Your task to perform on an android device: Open the web browser Image 0: 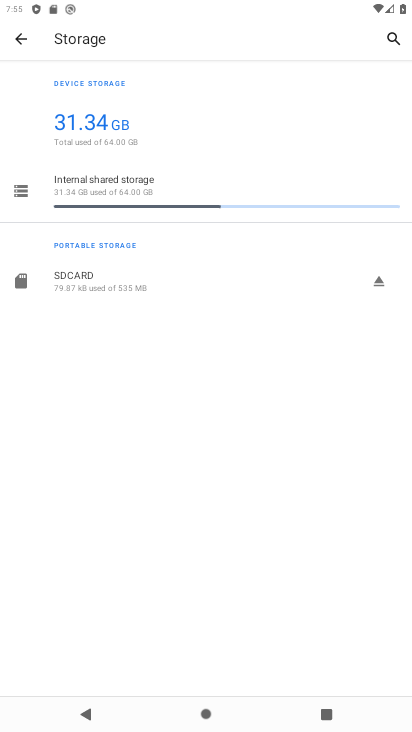
Step 0: press home button
Your task to perform on an android device: Open the web browser Image 1: 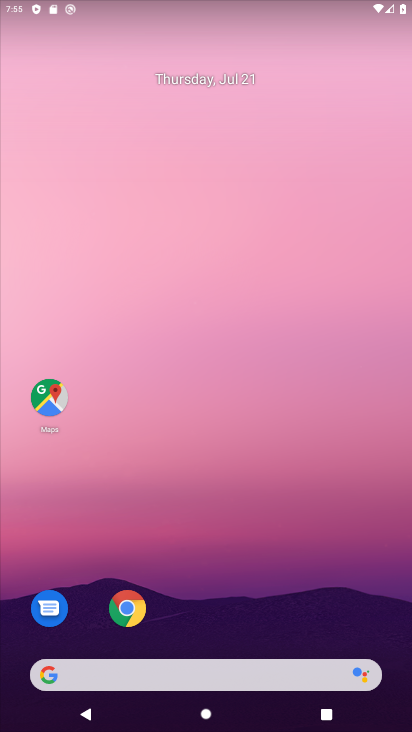
Step 1: click (123, 608)
Your task to perform on an android device: Open the web browser Image 2: 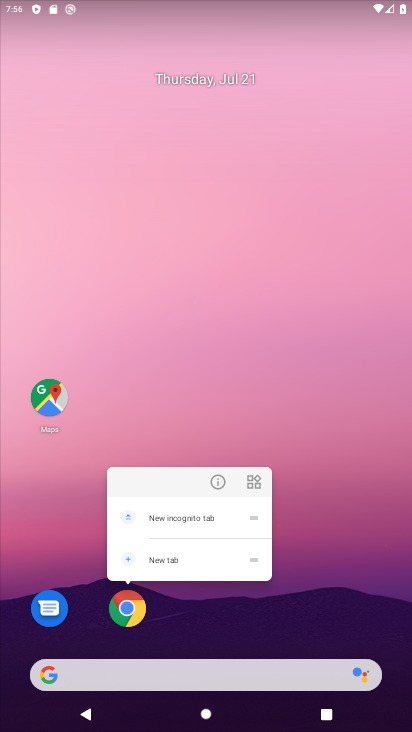
Step 2: click (123, 608)
Your task to perform on an android device: Open the web browser Image 3: 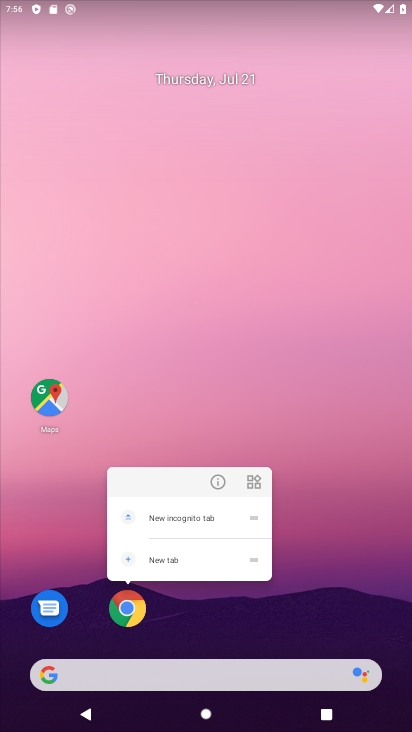
Step 3: click (127, 607)
Your task to perform on an android device: Open the web browser Image 4: 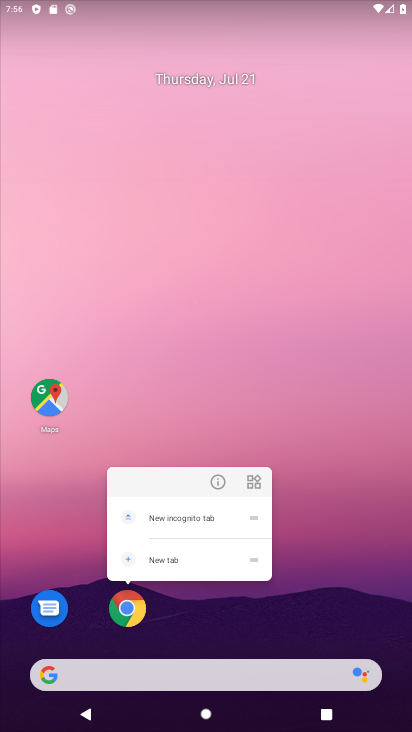
Step 4: click (133, 607)
Your task to perform on an android device: Open the web browser Image 5: 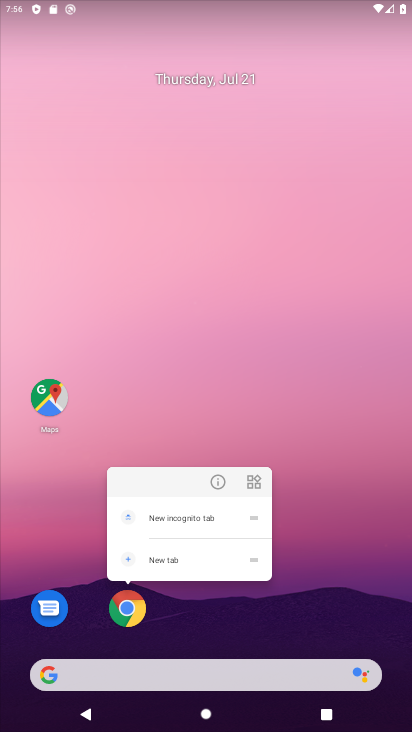
Step 5: click (219, 637)
Your task to perform on an android device: Open the web browser Image 6: 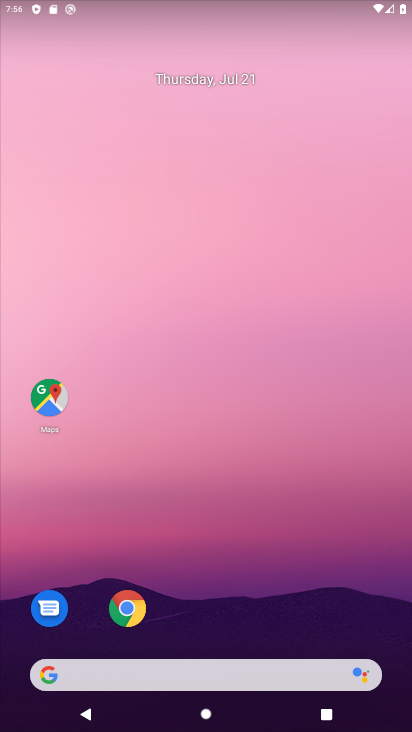
Step 6: drag from (275, 653) to (299, 9)
Your task to perform on an android device: Open the web browser Image 7: 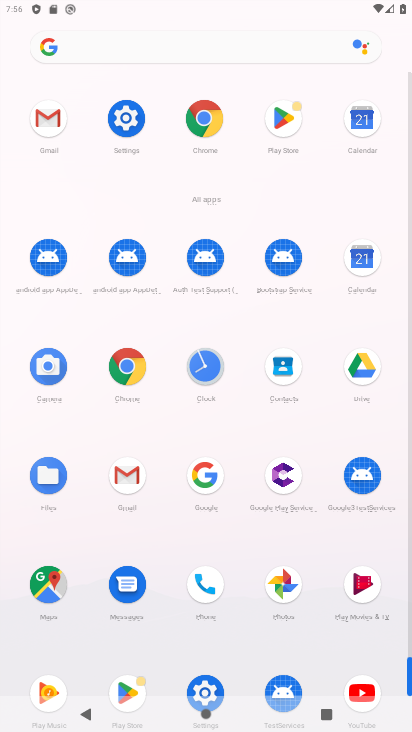
Step 7: click (204, 111)
Your task to perform on an android device: Open the web browser Image 8: 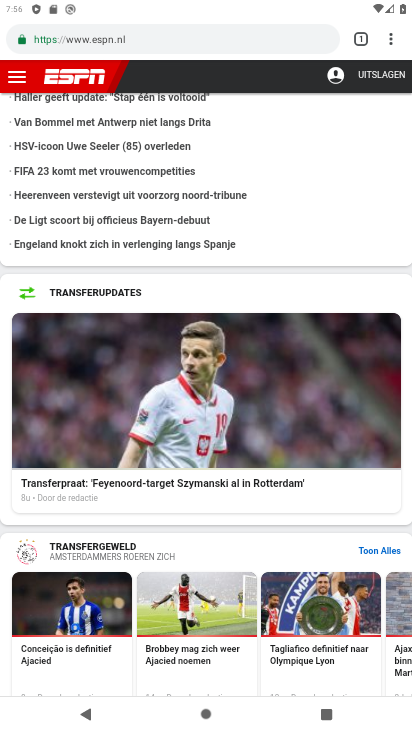
Step 8: click (358, 39)
Your task to perform on an android device: Open the web browser Image 9: 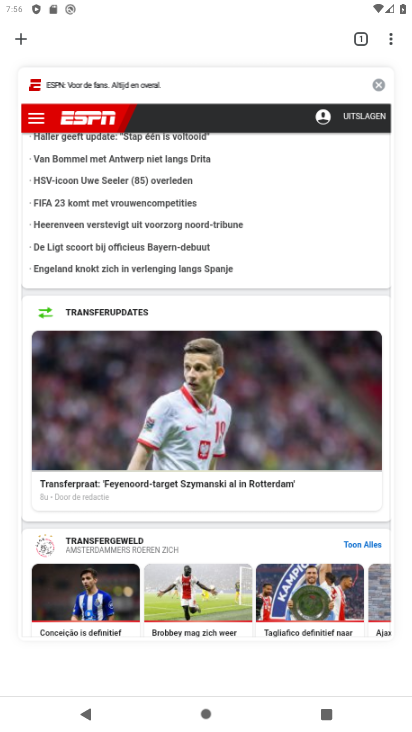
Step 9: click (21, 35)
Your task to perform on an android device: Open the web browser Image 10: 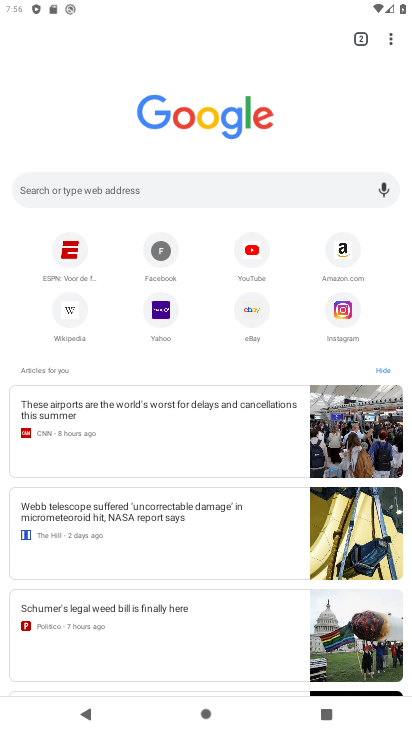
Step 10: task complete